Your task to perform on an android device: What is the news today? Image 0: 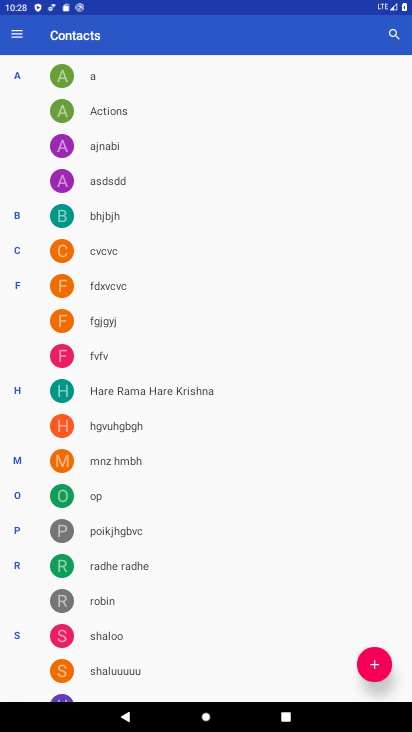
Step 0: press home button
Your task to perform on an android device: What is the news today? Image 1: 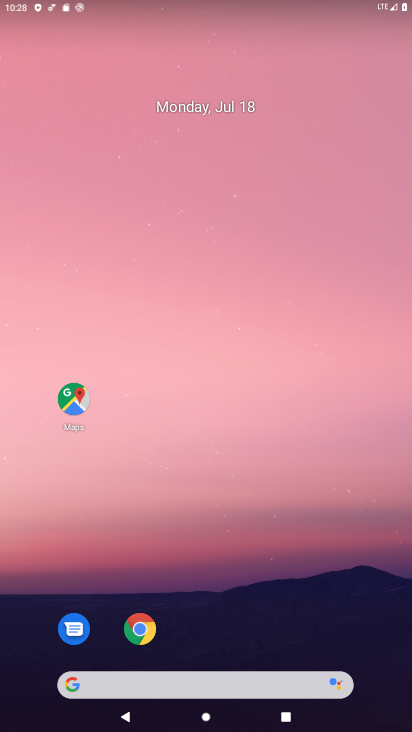
Step 1: task complete